Your task to perform on an android device: Is it going to rain tomorrow? Image 0: 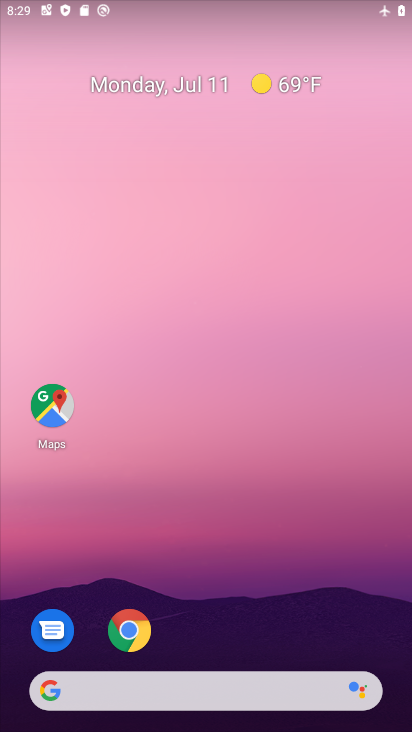
Step 0: drag from (189, 685) to (222, 363)
Your task to perform on an android device: Is it going to rain tomorrow? Image 1: 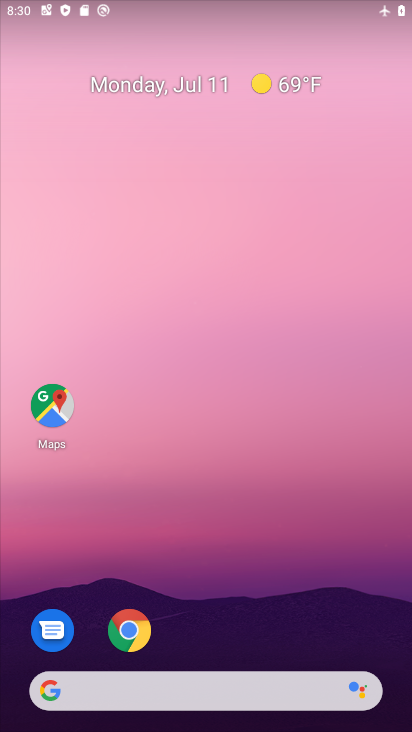
Step 1: click (125, 630)
Your task to perform on an android device: Is it going to rain tomorrow? Image 2: 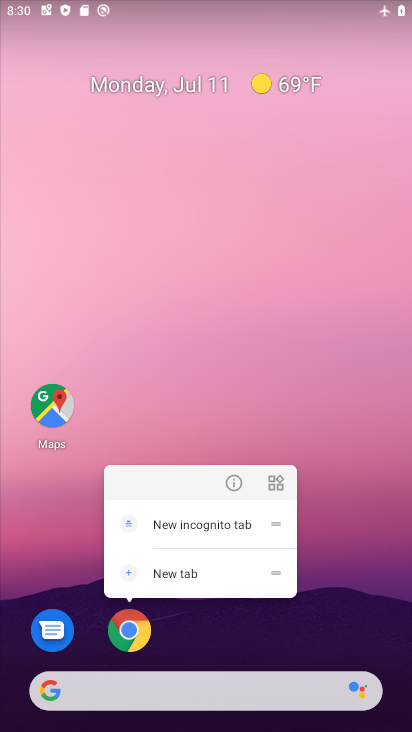
Step 2: click (141, 627)
Your task to perform on an android device: Is it going to rain tomorrow? Image 3: 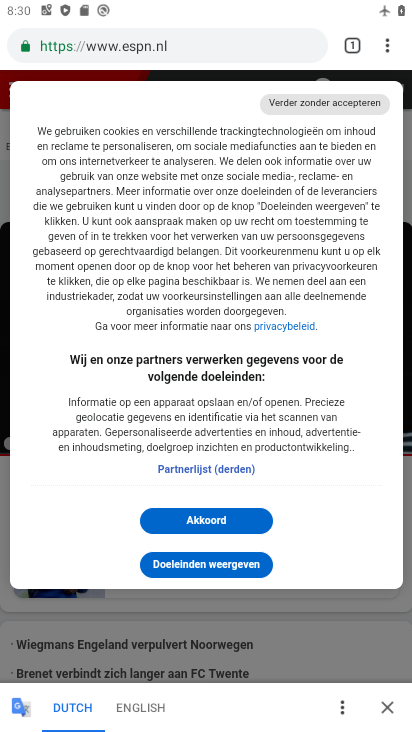
Step 3: click (171, 33)
Your task to perform on an android device: Is it going to rain tomorrow? Image 4: 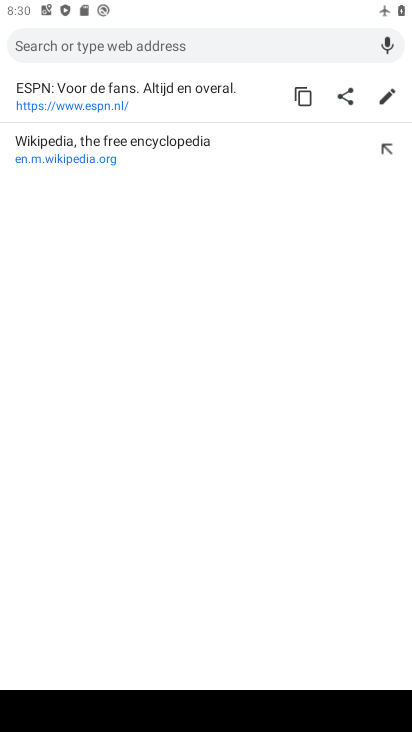
Step 4: type "weather tommorow"
Your task to perform on an android device: Is it going to rain tomorrow? Image 5: 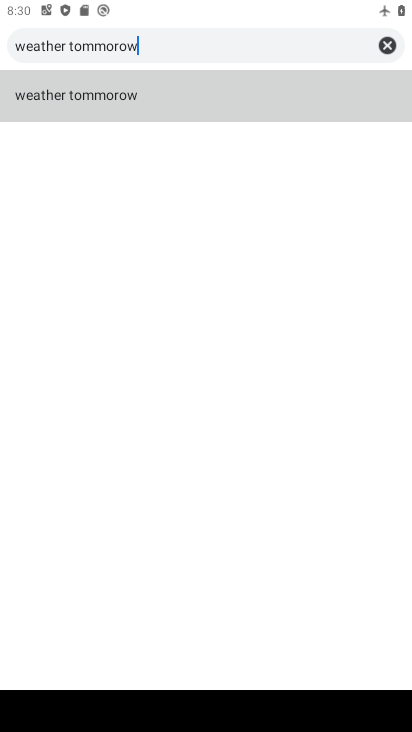
Step 5: click (99, 95)
Your task to perform on an android device: Is it going to rain tomorrow? Image 6: 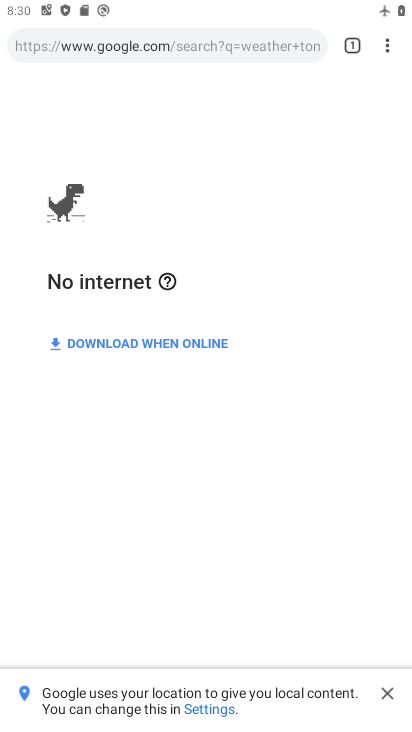
Step 6: task complete